Your task to perform on an android device: clear history in the chrome app Image 0: 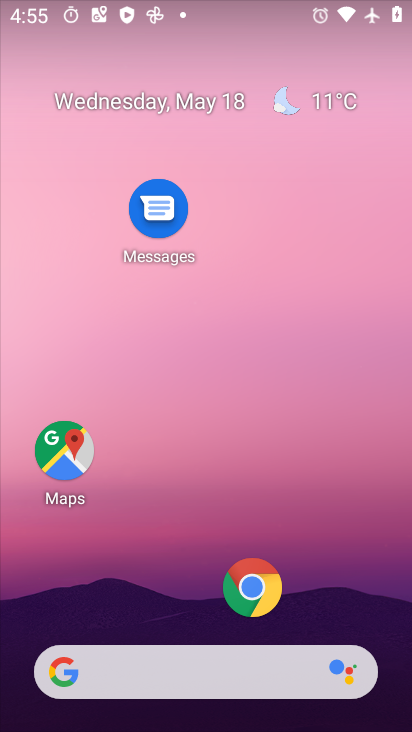
Step 0: drag from (177, 612) to (237, 362)
Your task to perform on an android device: clear history in the chrome app Image 1: 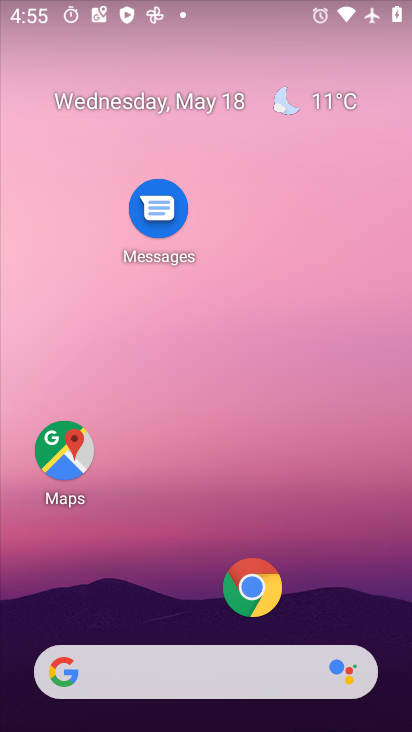
Step 1: click (253, 587)
Your task to perform on an android device: clear history in the chrome app Image 2: 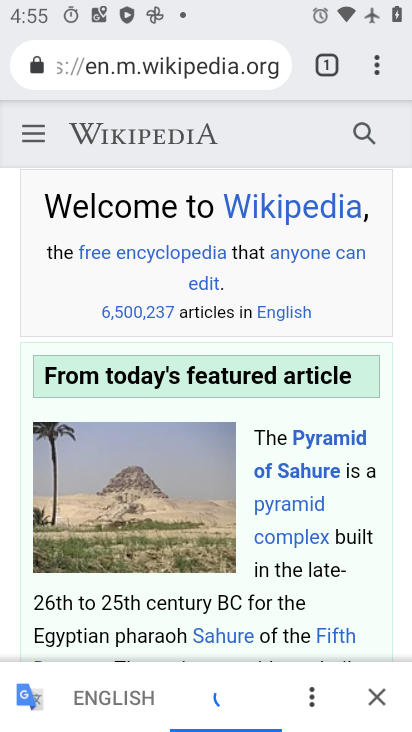
Step 2: click (377, 74)
Your task to perform on an android device: clear history in the chrome app Image 3: 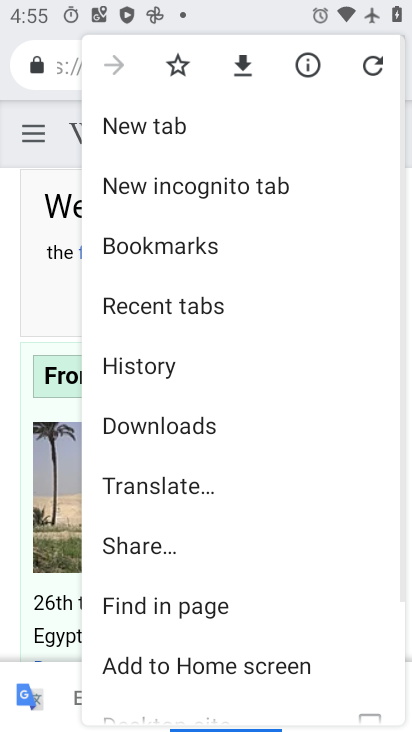
Step 3: click (200, 378)
Your task to perform on an android device: clear history in the chrome app Image 4: 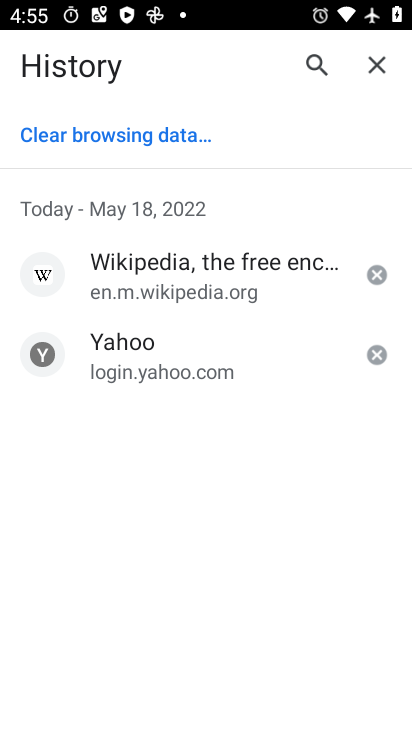
Step 4: click (147, 139)
Your task to perform on an android device: clear history in the chrome app Image 5: 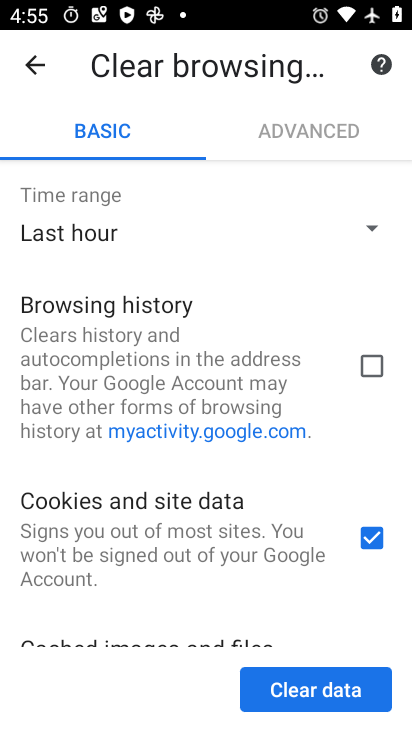
Step 5: click (366, 375)
Your task to perform on an android device: clear history in the chrome app Image 6: 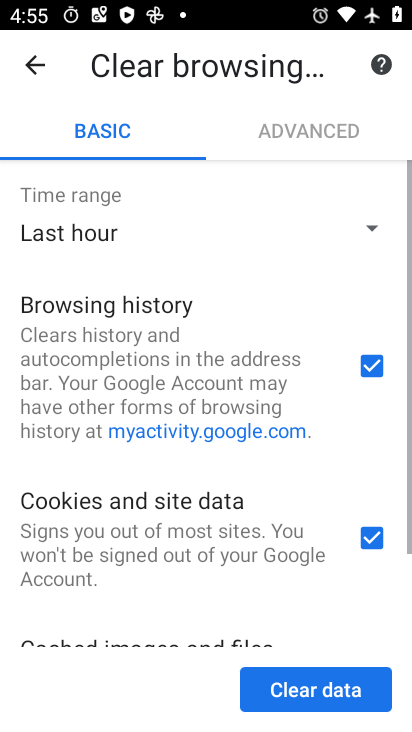
Step 6: click (314, 690)
Your task to perform on an android device: clear history in the chrome app Image 7: 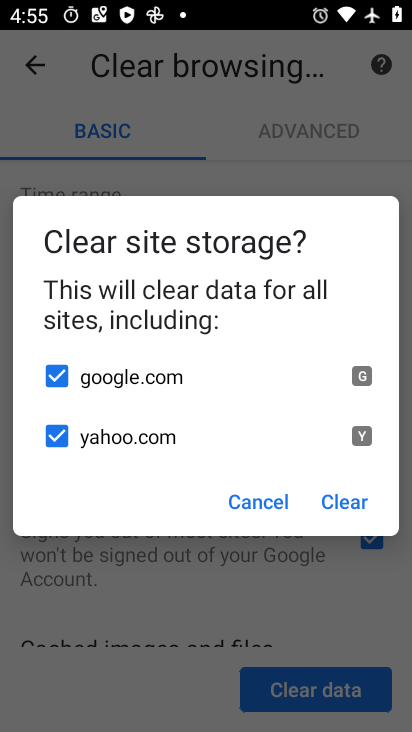
Step 7: click (345, 499)
Your task to perform on an android device: clear history in the chrome app Image 8: 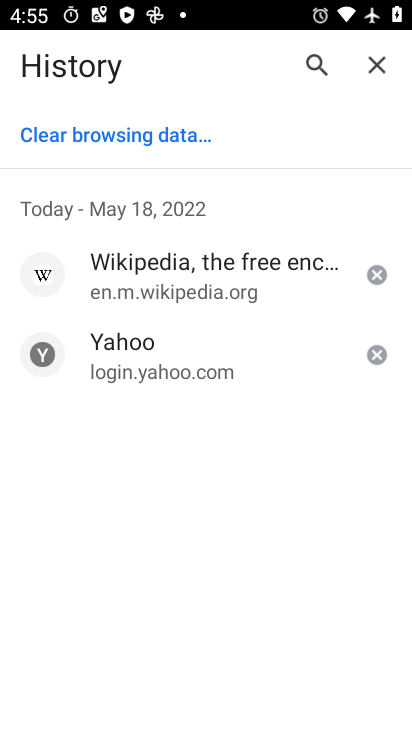
Step 8: task complete